Your task to perform on an android device: turn notification dots off Image 0: 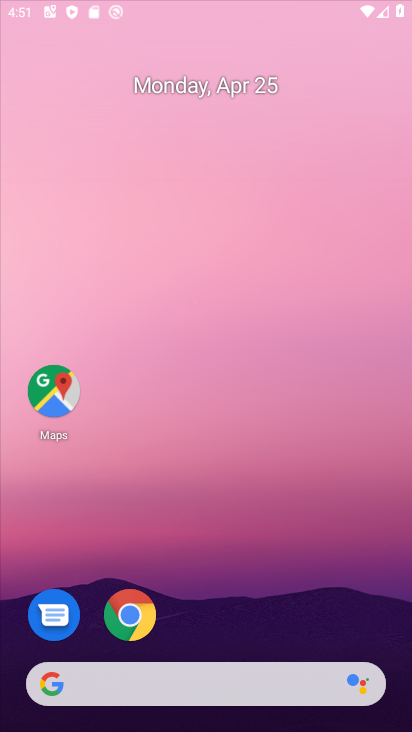
Step 0: drag from (341, 580) to (358, 106)
Your task to perform on an android device: turn notification dots off Image 1: 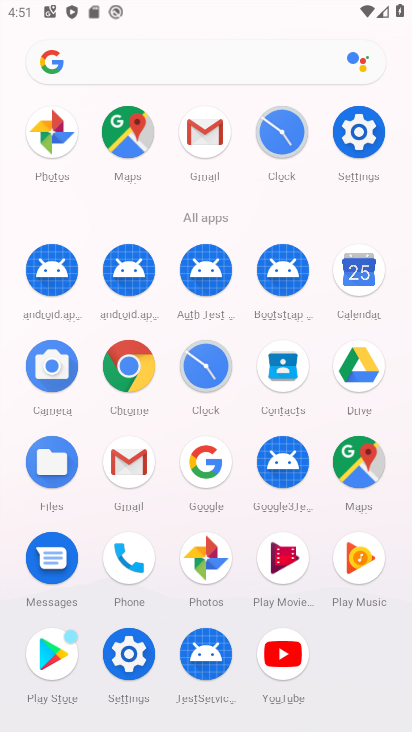
Step 1: click (354, 126)
Your task to perform on an android device: turn notification dots off Image 2: 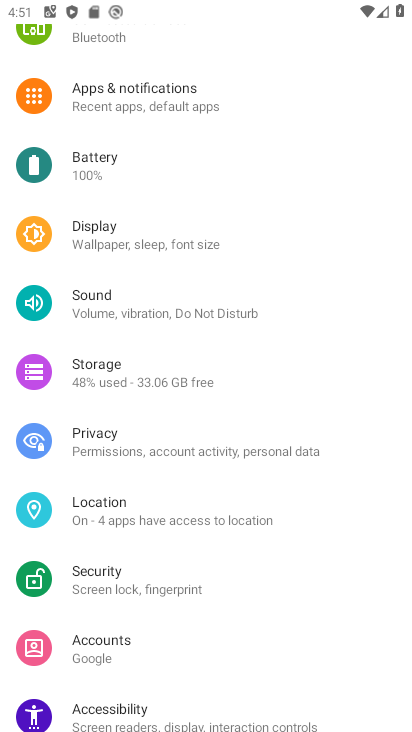
Step 2: drag from (288, 164) to (249, 506)
Your task to perform on an android device: turn notification dots off Image 3: 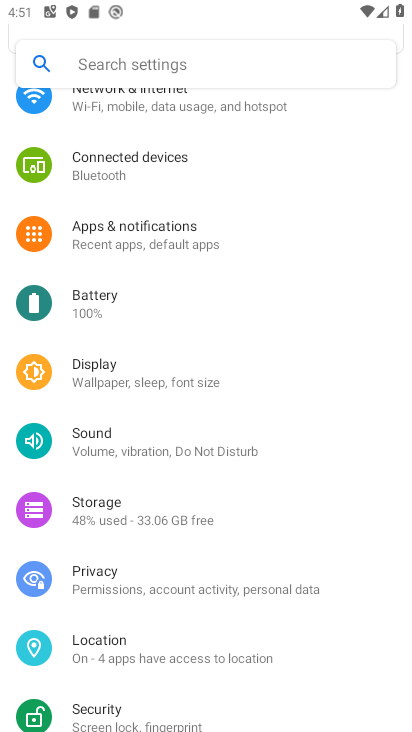
Step 3: click (158, 234)
Your task to perform on an android device: turn notification dots off Image 4: 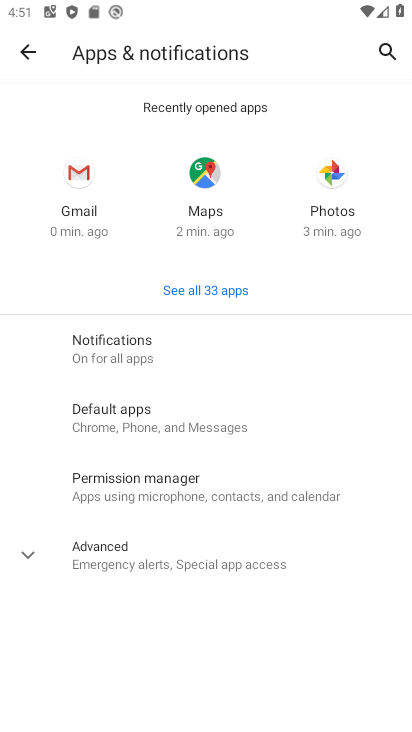
Step 4: click (112, 545)
Your task to perform on an android device: turn notification dots off Image 5: 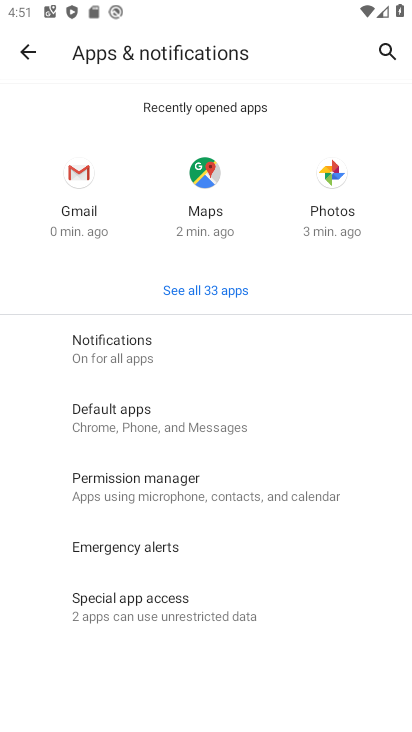
Step 5: drag from (200, 553) to (245, 283)
Your task to perform on an android device: turn notification dots off Image 6: 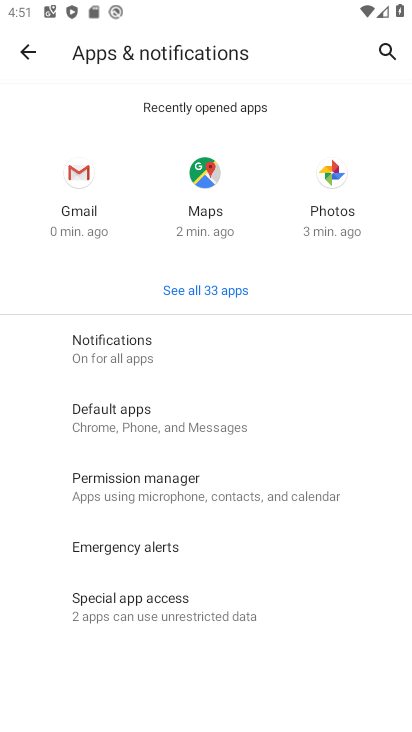
Step 6: drag from (245, 555) to (222, 297)
Your task to perform on an android device: turn notification dots off Image 7: 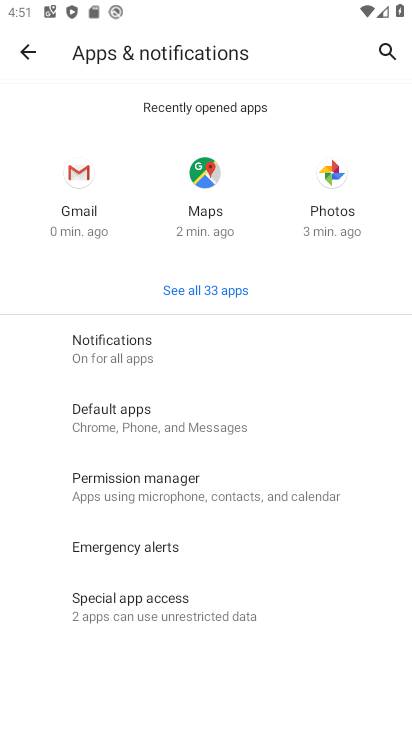
Step 7: click (139, 358)
Your task to perform on an android device: turn notification dots off Image 8: 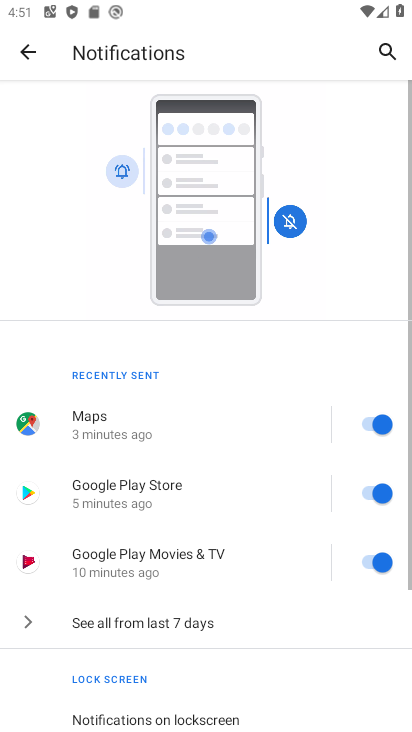
Step 8: drag from (170, 527) to (184, 175)
Your task to perform on an android device: turn notification dots off Image 9: 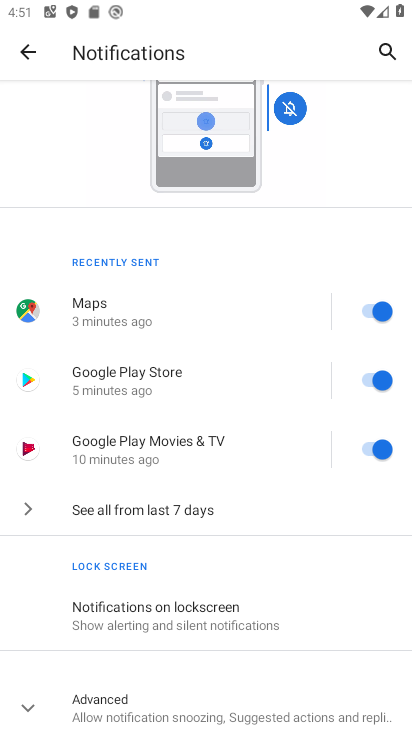
Step 9: drag from (287, 503) to (288, 221)
Your task to perform on an android device: turn notification dots off Image 10: 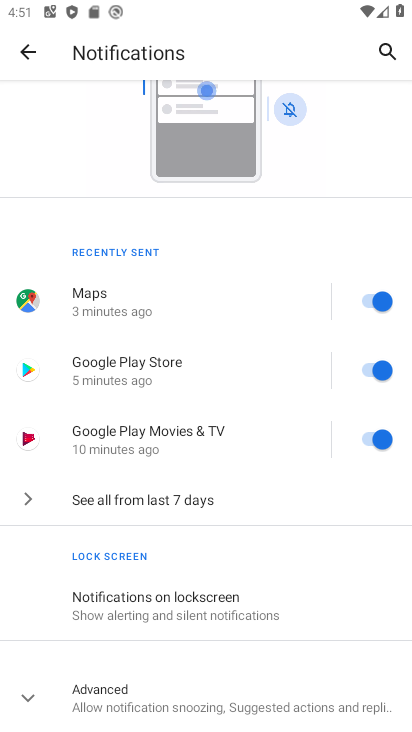
Step 10: click (214, 689)
Your task to perform on an android device: turn notification dots off Image 11: 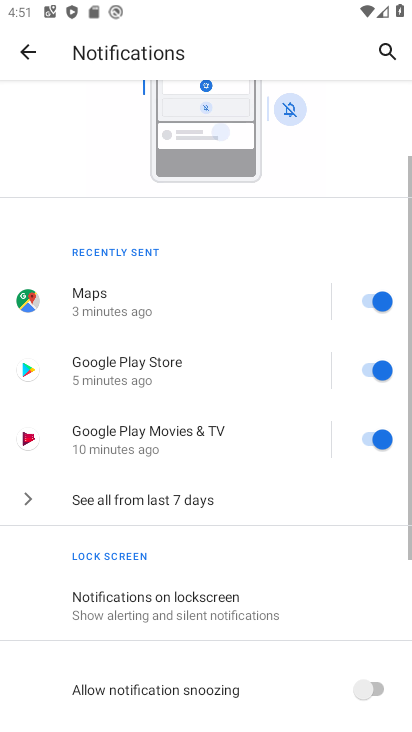
Step 11: drag from (216, 686) to (245, 182)
Your task to perform on an android device: turn notification dots off Image 12: 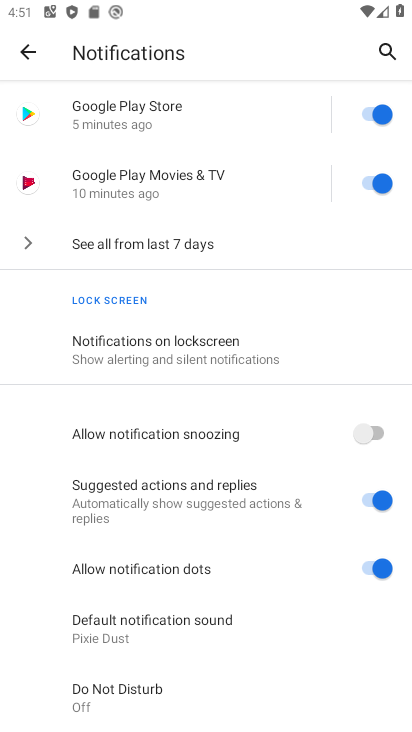
Step 12: drag from (289, 524) to (284, 179)
Your task to perform on an android device: turn notification dots off Image 13: 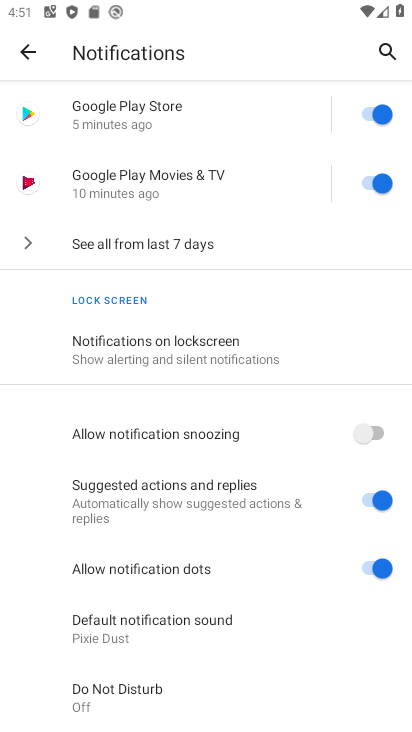
Step 13: click (372, 554)
Your task to perform on an android device: turn notification dots off Image 14: 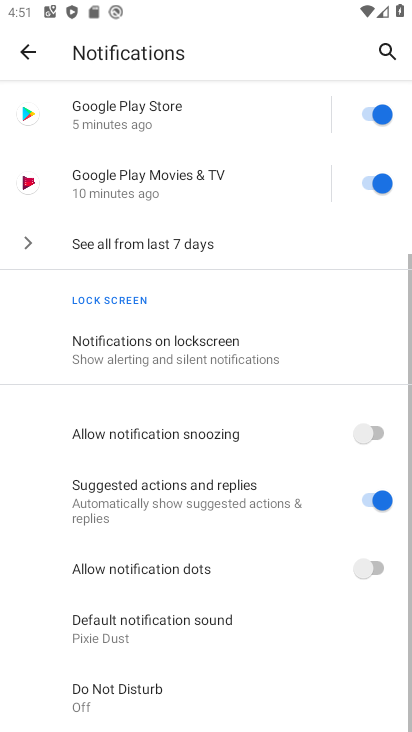
Step 14: task complete